Your task to perform on an android device: Go to Amazon Image 0: 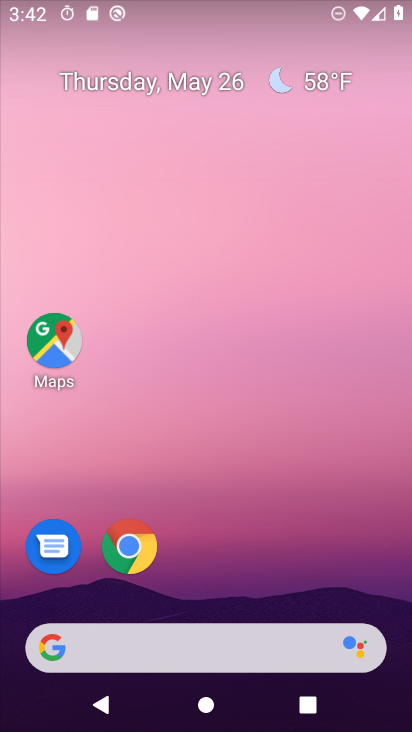
Step 0: press home button
Your task to perform on an android device: Go to Amazon Image 1: 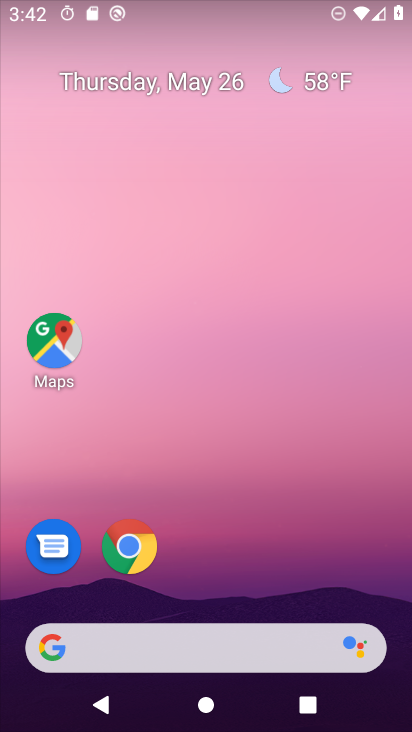
Step 1: click (123, 546)
Your task to perform on an android device: Go to Amazon Image 2: 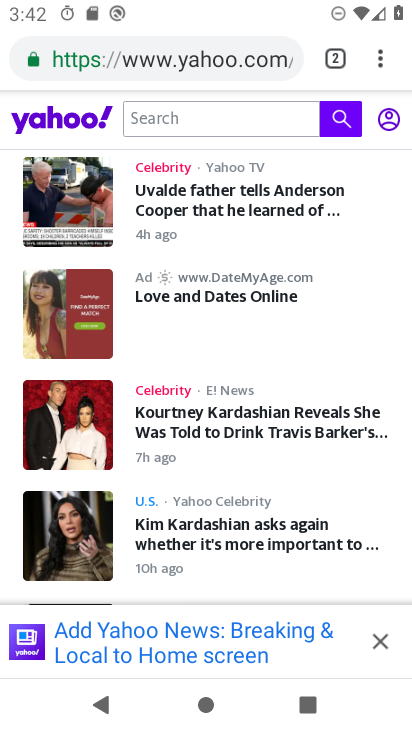
Step 2: click (336, 60)
Your task to perform on an android device: Go to Amazon Image 3: 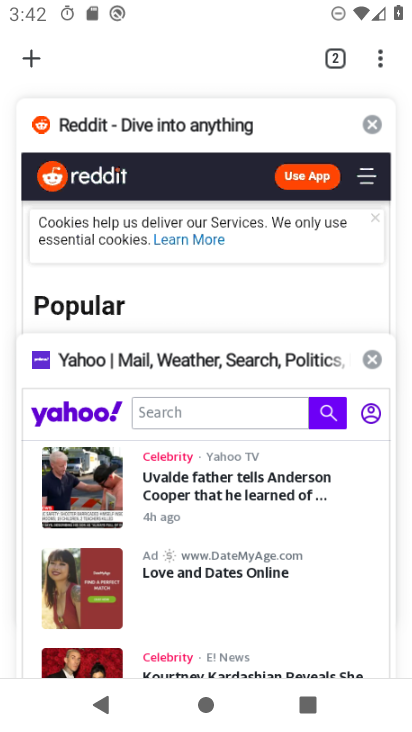
Step 3: click (369, 127)
Your task to perform on an android device: Go to Amazon Image 4: 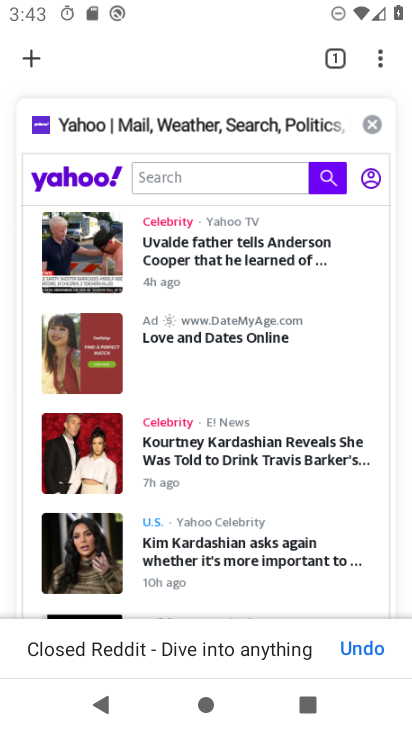
Step 4: click (372, 118)
Your task to perform on an android device: Go to Amazon Image 5: 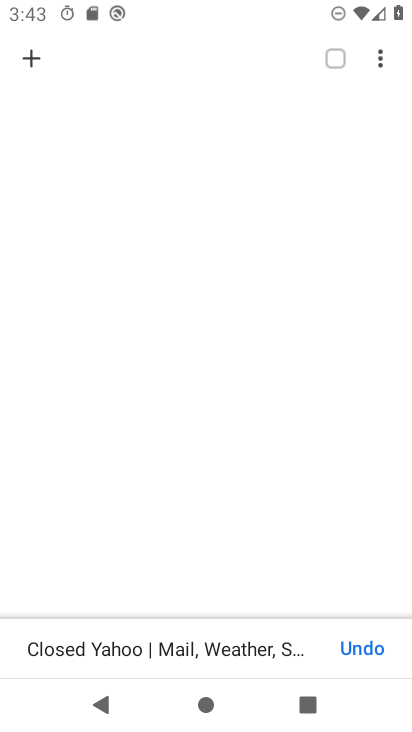
Step 5: click (27, 59)
Your task to perform on an android device: Go to Amazon Image 6: 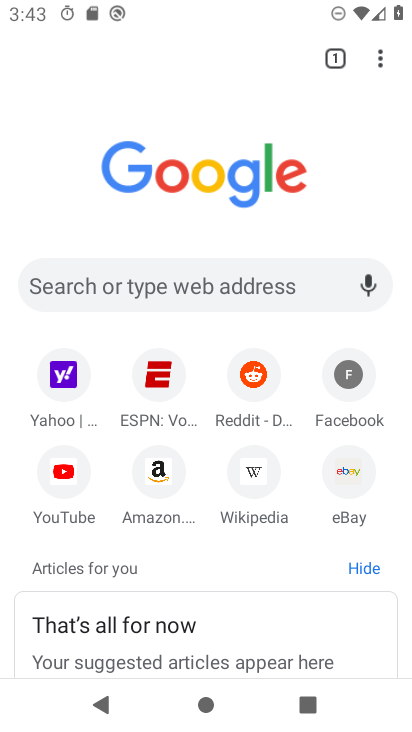
Step 6: click (153, 468)
Your task to perform on an android device: Go to Amazon Image 7: 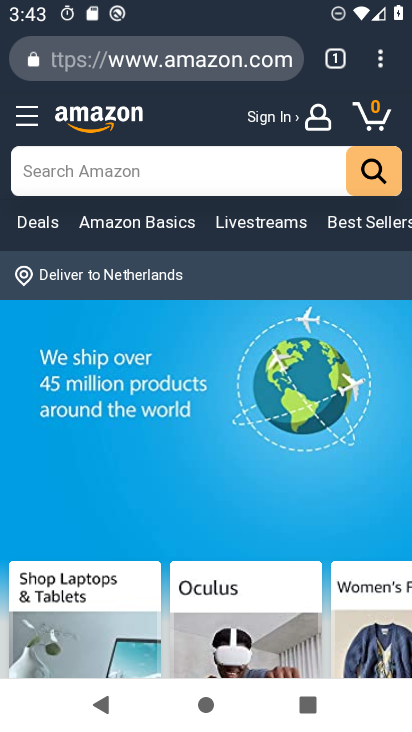
Step 7: task complete